Your task to perform on an android device: toggle notification dots Image 0: 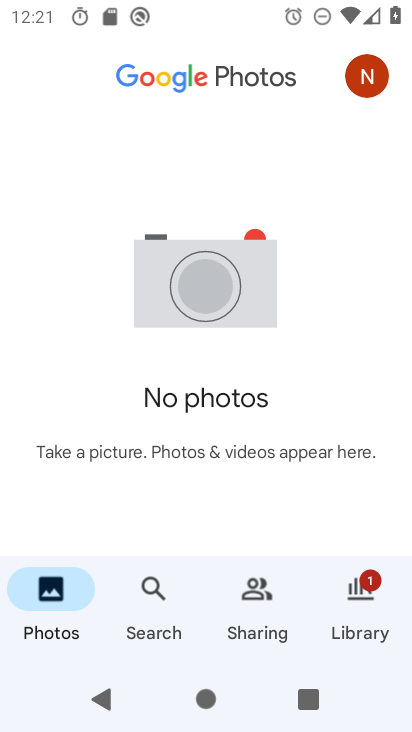
Step 0: press home button
Your task to perform on an android device: toggle notification dots Image 1: 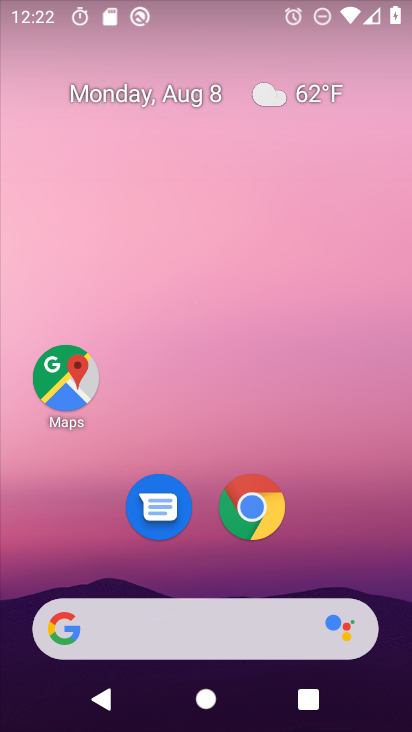
Step 1: drag from (334, 518) to (297, 14)
Your task to perform on an android device: toggle notification dots Image 2: 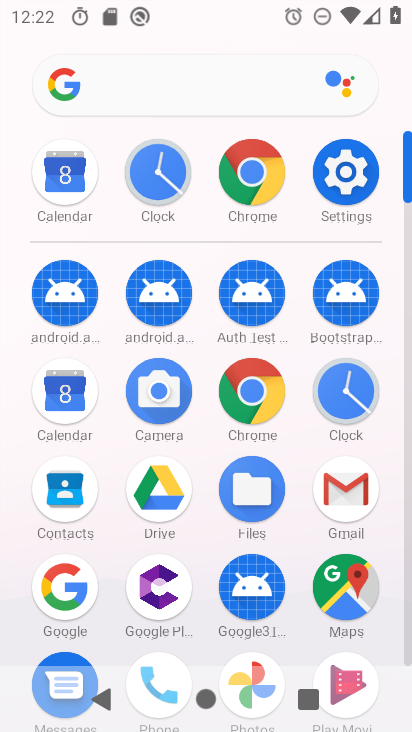
Step 2: click (355, 175)
Your task to perform on an android device: toggle notification dots Image 3: 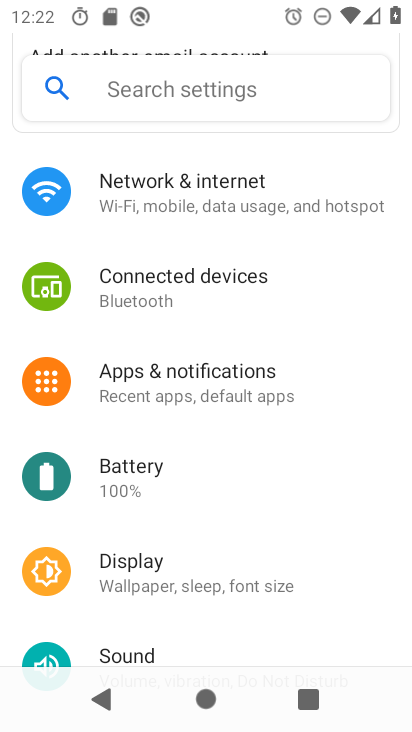
Step 3: click (156, 393)
Your task to perform on an android device: toggle notification dots Image 4: 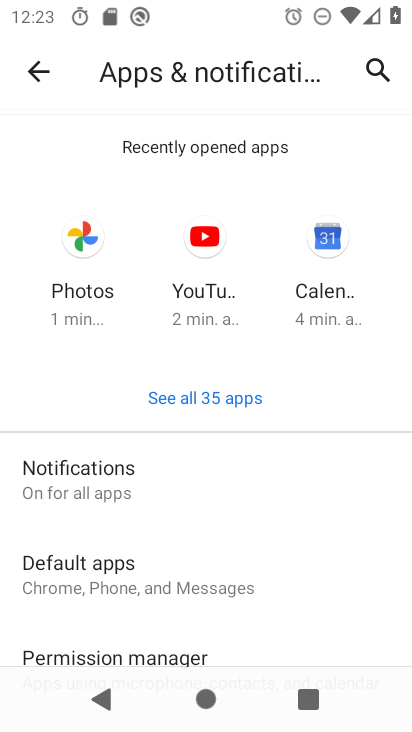
Step 4: click (94, 484)
Your task to perform on an android device: toggle notification dots Image 5: 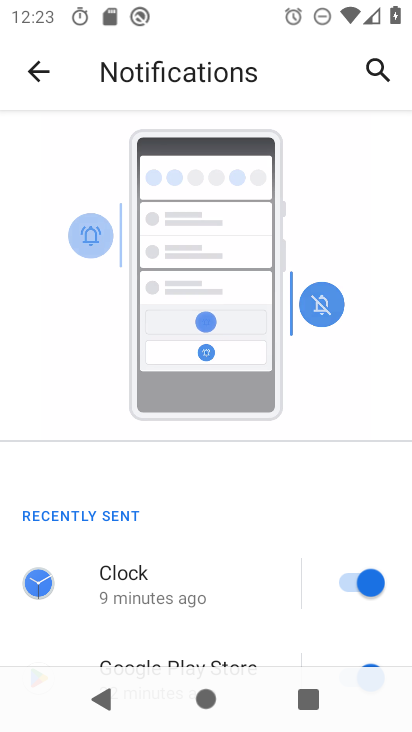
Step 5: drag from (222, 570) to (291, 64)
Your task to perform on an android device: toggle notification dots Image 6: 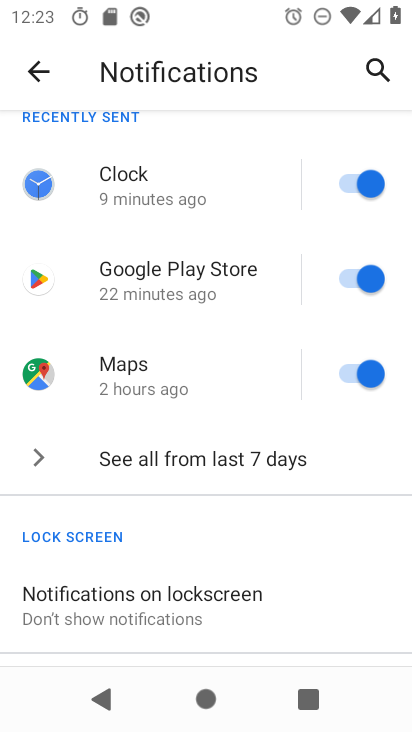
Step 6: drag from (311, 575) to (314, 130)
Your task to perform on an android device: toggle notification dots Image 7: 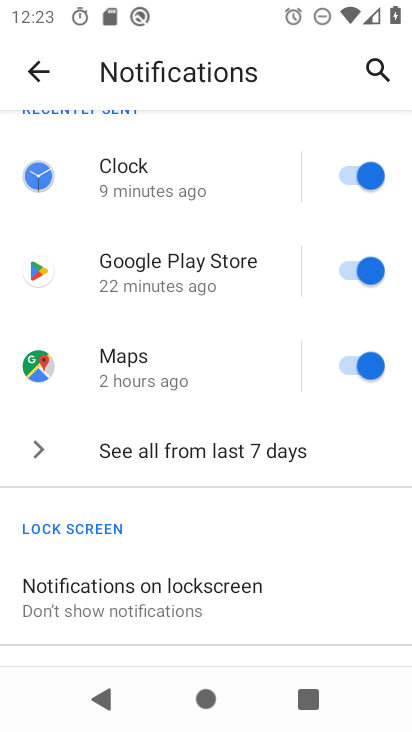
Step 7: drag from (264, 623) to (333, 201)
Your task to perform on an android device: toggle notification dots Image 8: 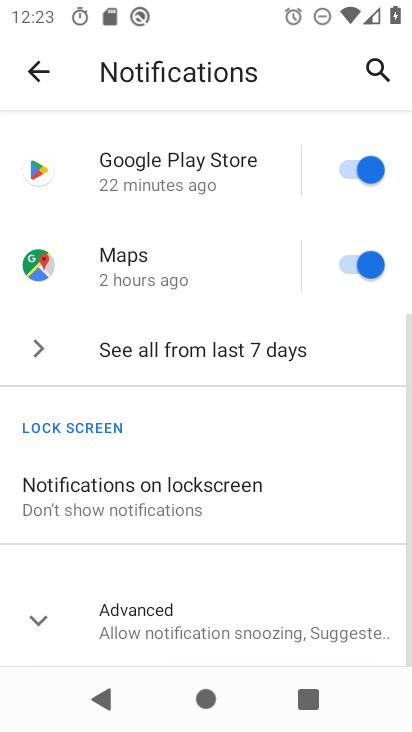
Step 8: click (177, 617)
Your task to perform on an android device: toggle notification dots Image 9: 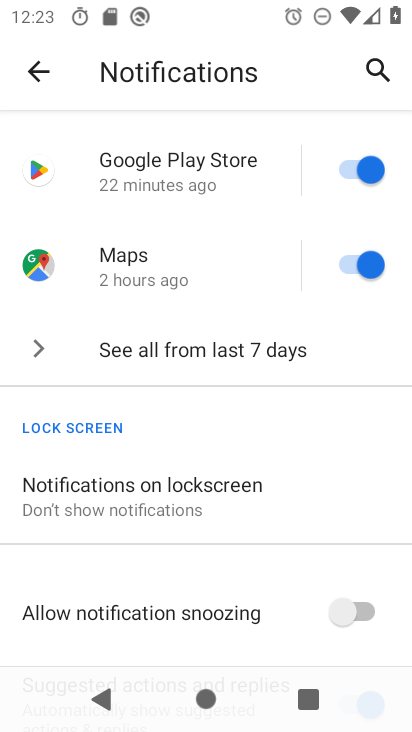
Step 9: drag from (280, 595) to (411, 269)
Your task to perform on an android device: toggle notification dots Image 10: 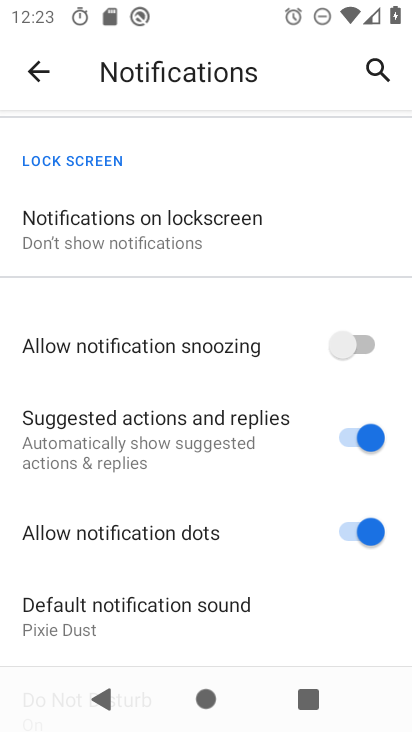
Step 10: click (359, 532)
Your task to perform on an android device: toggle notification dots Image 11: 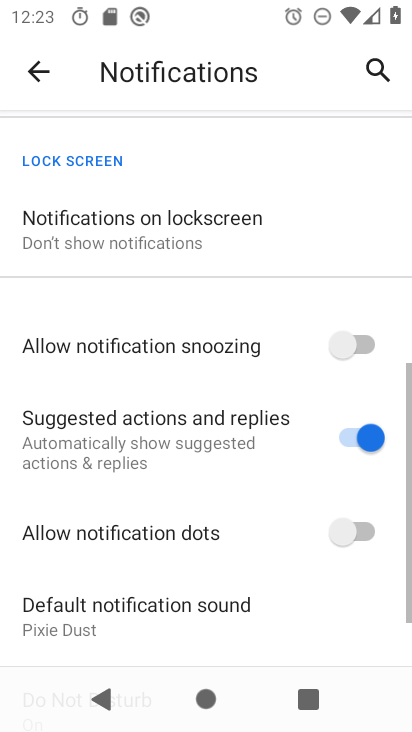
Step 11: task complete